Your task to perform on an android device: change the clock display to show seconds Image 0: 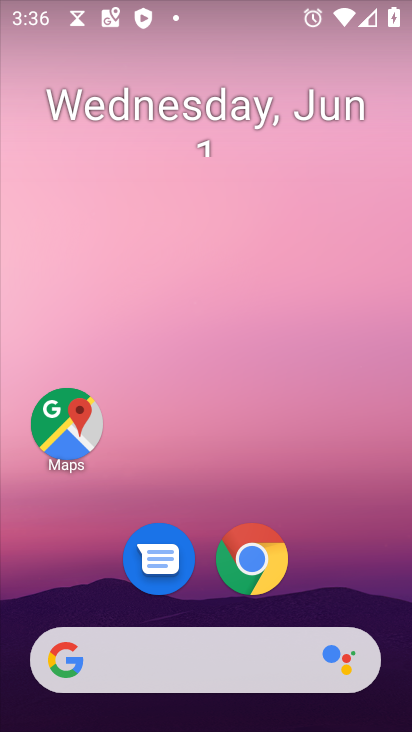
Step 0: drag from (334, 569) to (314, 77)
Your task to perform on an android device: change the clock display to show seconds Image 1: 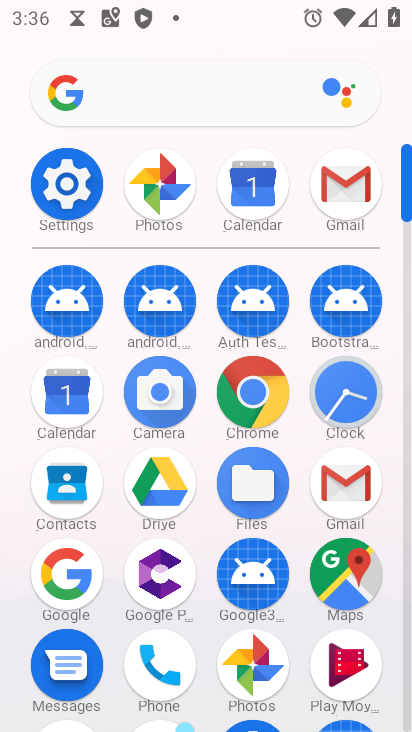
Step 1: click (352, 394)
Your task to perform on an android device: change the clock display to show seconds Image 2: 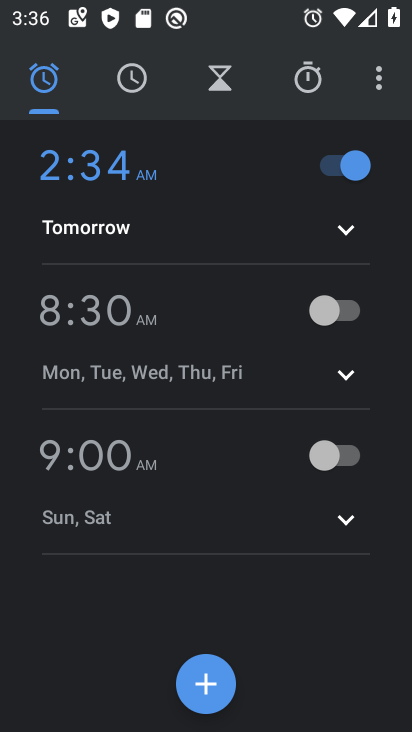
Step 2: click (379, 88)
Your task to perform on an android device: change the clock display to show seconds Image 3: 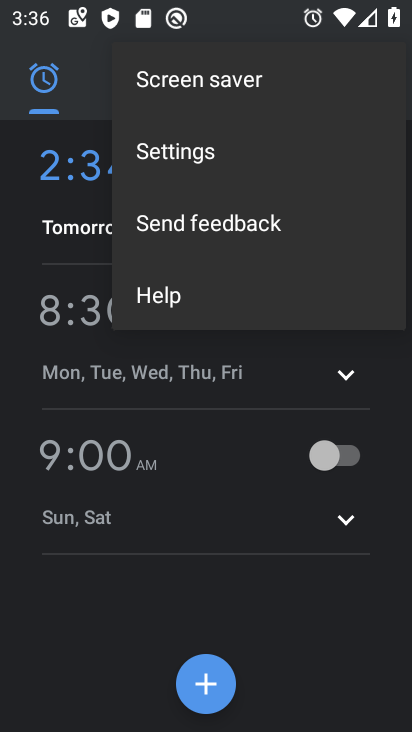
Step 3: click (217, 155)
Your task to perform on an android device: change the clock display to show seconds Image 4: 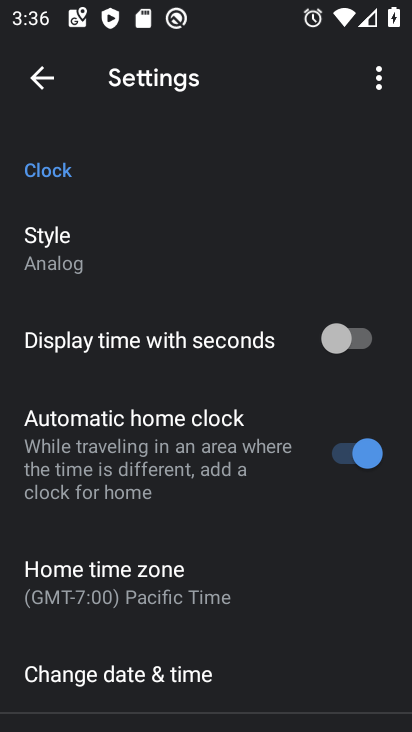
Step 4: click (334, 342)
Your task to perform on an android device: change the clock display to show seconds Image 5: 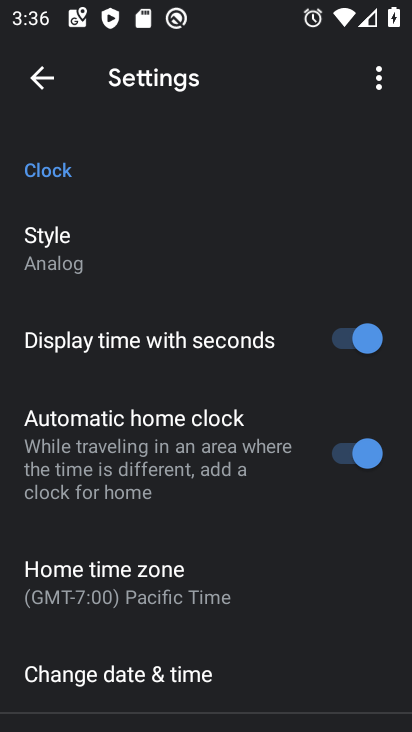
Step 5: task complete